Your task to perform on an android device: Go to ESPN.com Image 0: 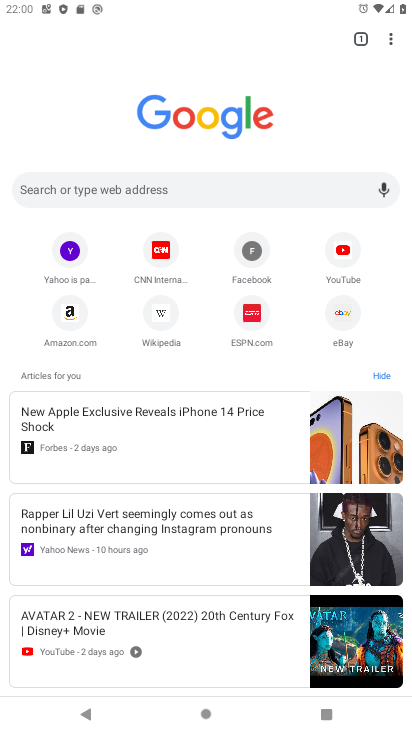
Step 0: press home button
Your task to perform on an android device: Go to ESPN.com Image 1: 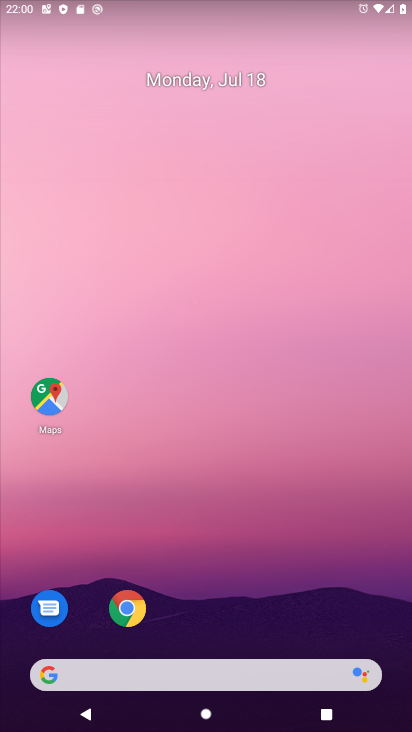
Step 1: click (77, 668)
Your task to perform on an android device: Go to ESPN.com Image 2: 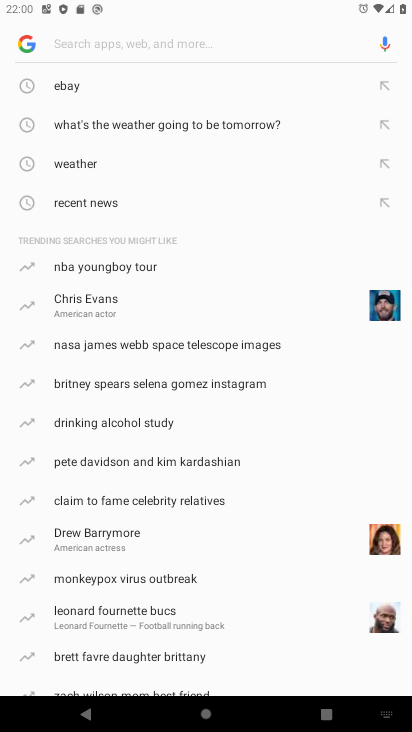
Step 2: type " ESPN.com"
Your task to perform on an android device: Go to ESPN.com Image 3: 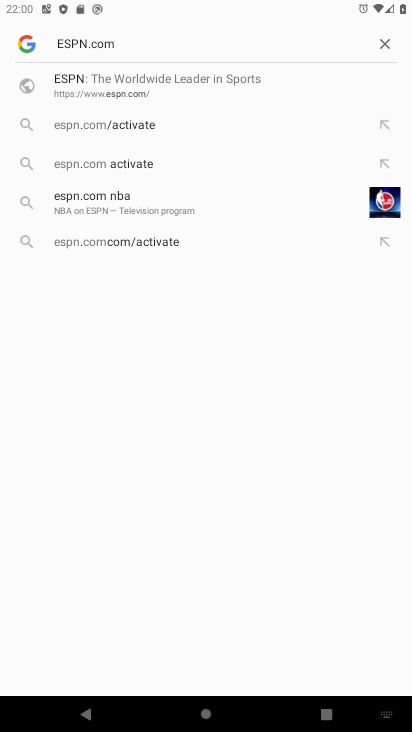
Step 3: click (109, 85)
Your task to perform on an android device: Go to ESPN.com Image 4: 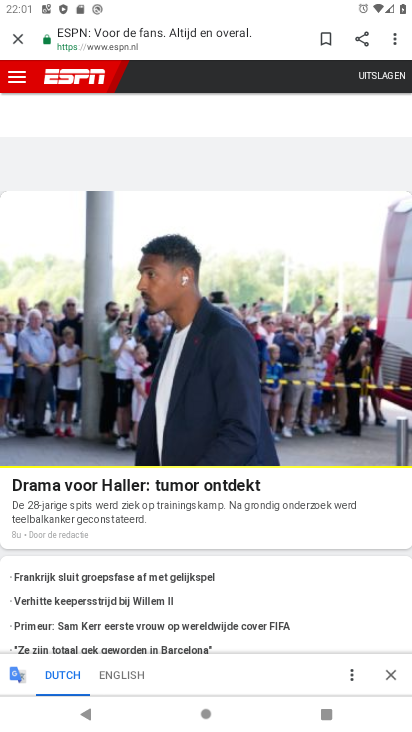
Step 4: task complete